Your task to perform on an android device: Open Yahoo.com Image 0: 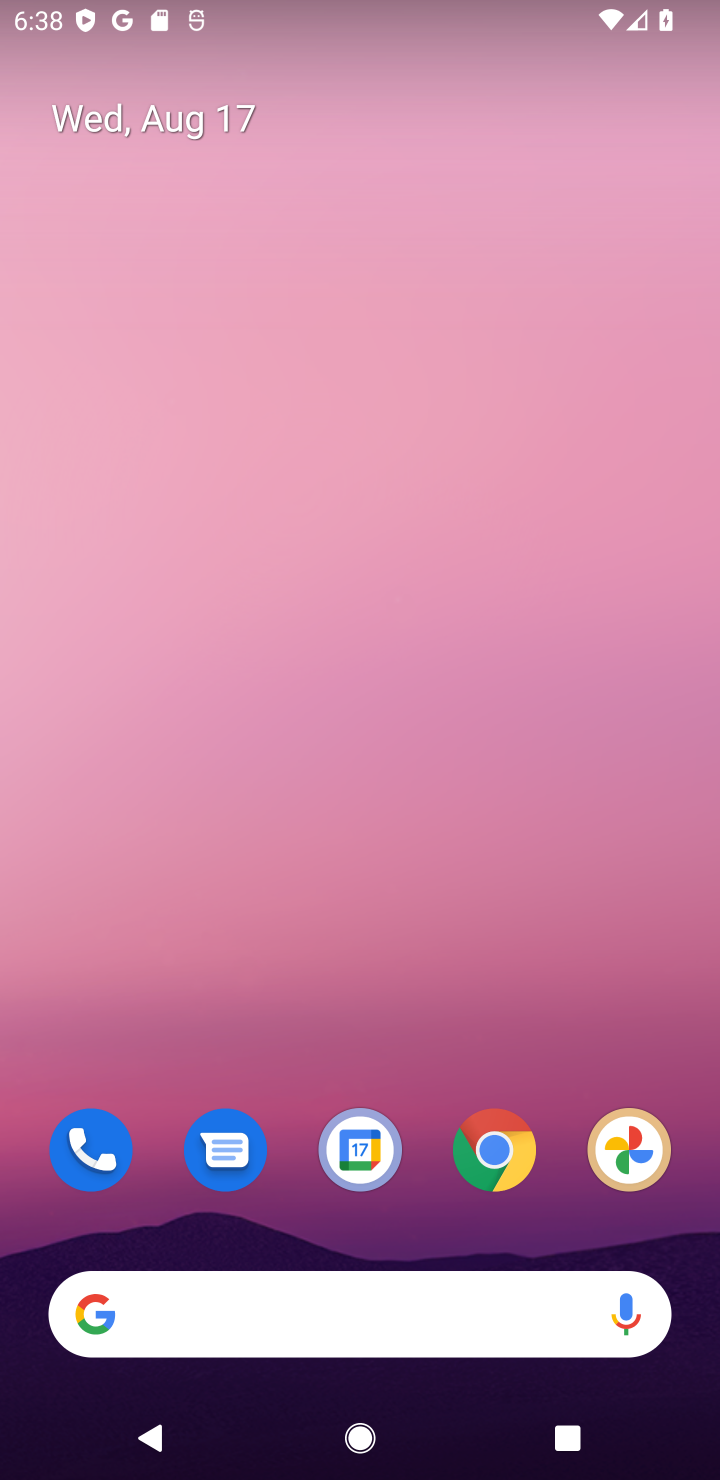
Step 0: click (500, 1167)
Your task to perform on an android device: Open Yahoo.com Image 1: 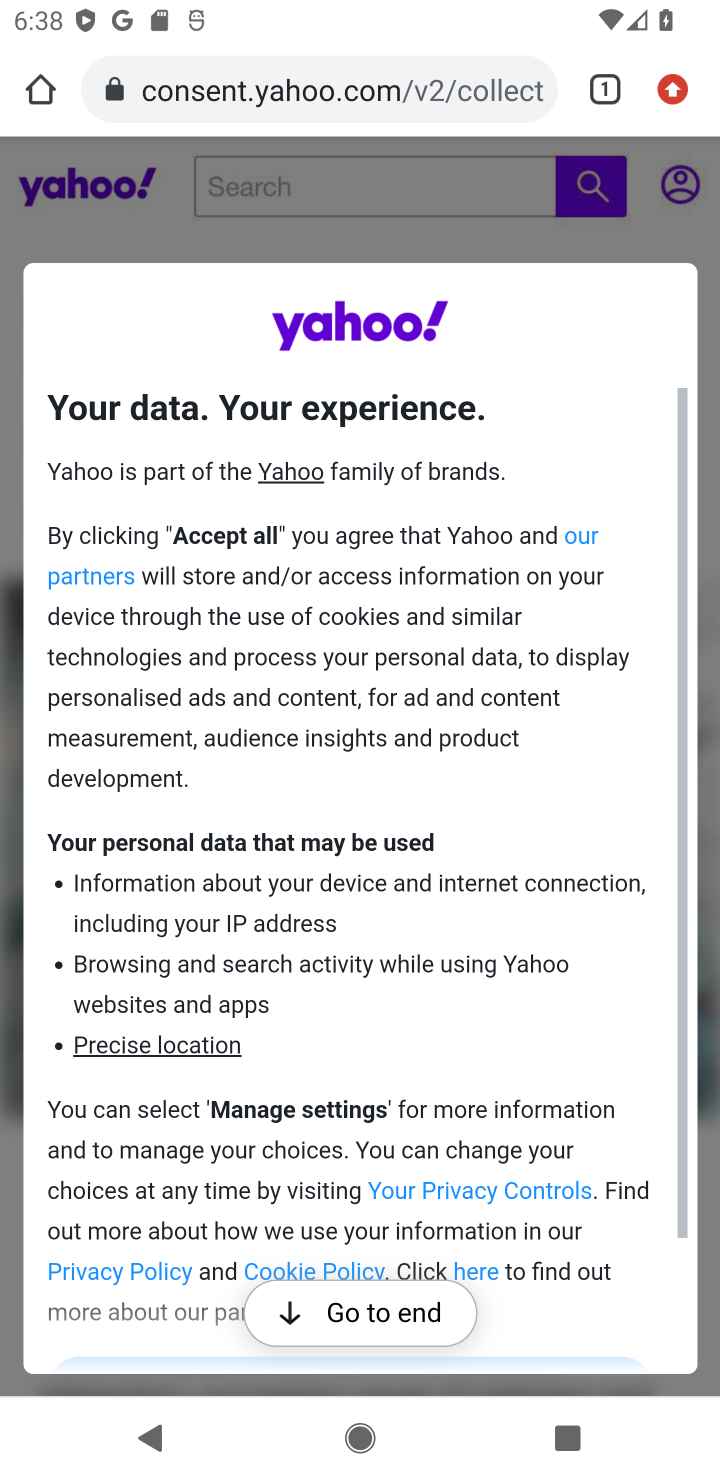
Step 1: task complete